Your task to perform on an android device: toggle airplane mode Image 0: 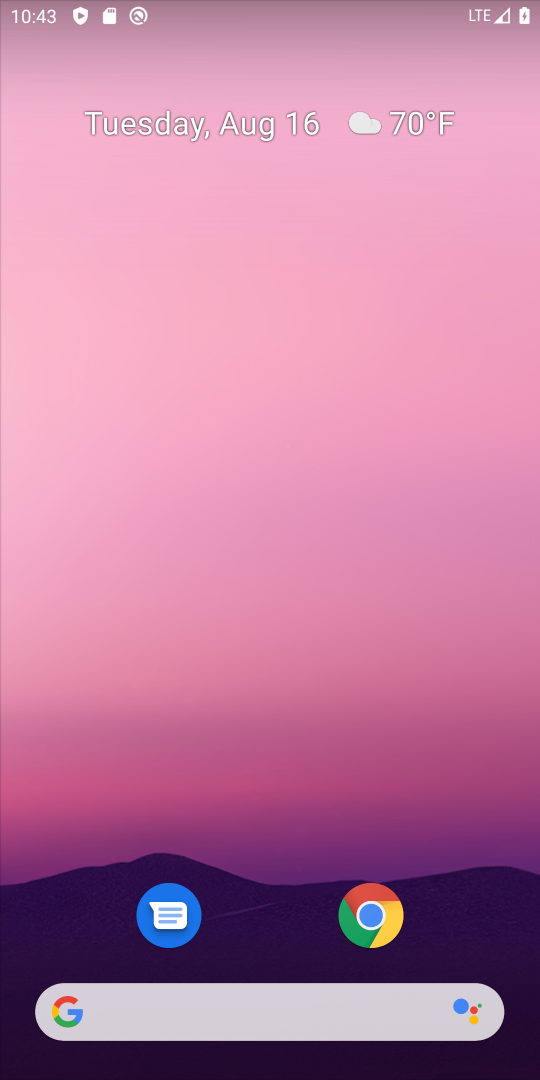
Step 0: drag from (306, 978) to (275, 49)
Your task to perform on an android device: toggle airplane mode Image 1: 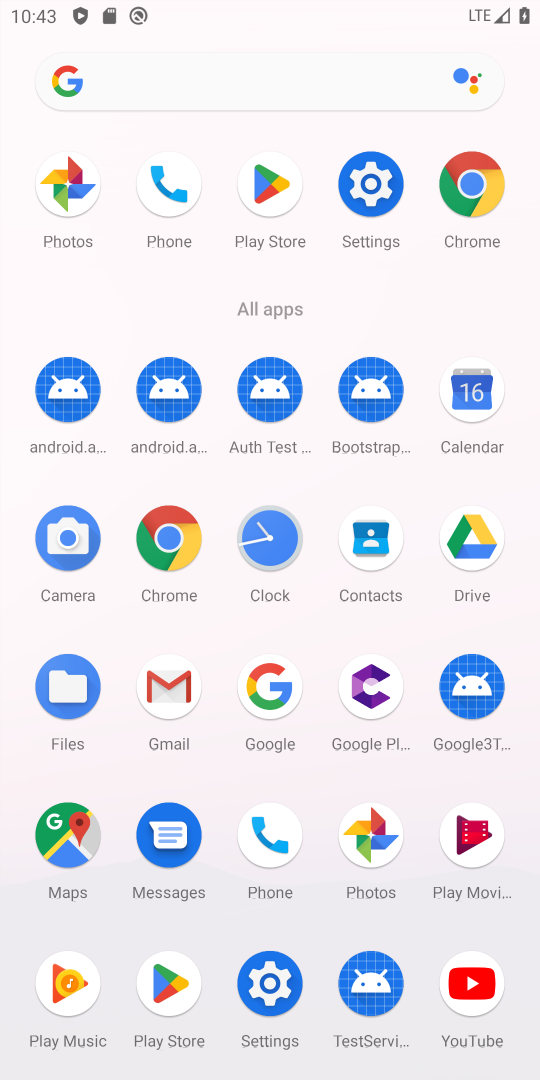
Step 1: click (362, 172)
Your task to perform on an android device: toggle airplane mode Image 2: 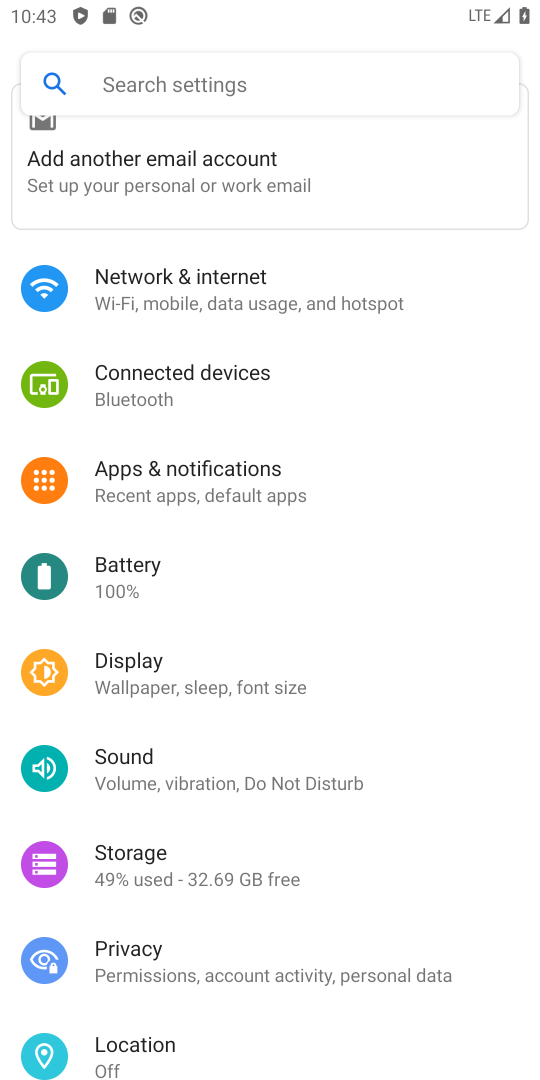
Step 2: click (283, 272)
Your task to perform on an android device: toggle airplane mode Image 3: 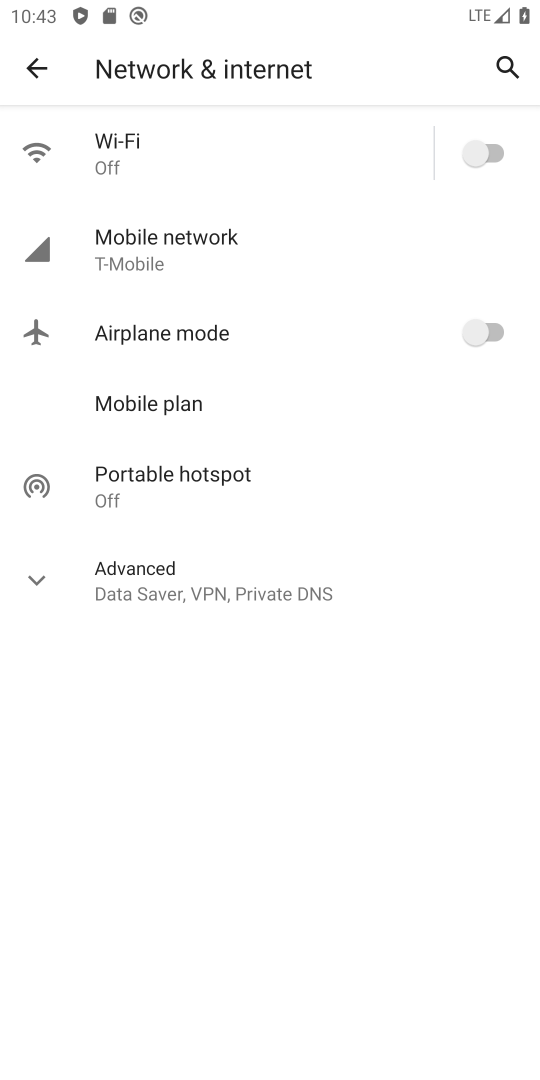
Step 3: click (472, 324)
Your task to perform on an android device: toggle airplane mode Image 4: 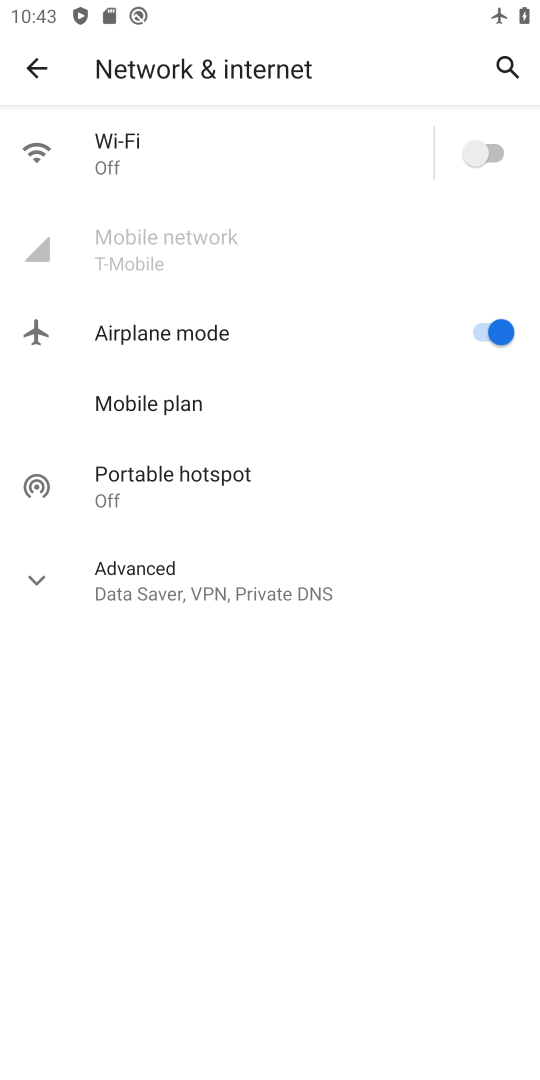
Step 4: task complete